Your task to perform on an android device: find which apps use the phone's location Image 0: 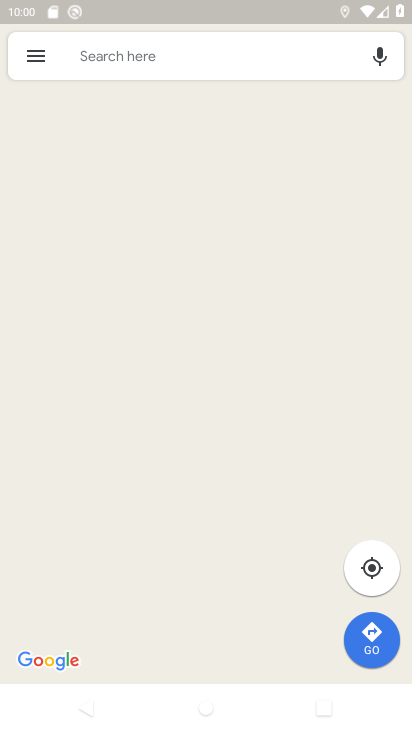
Step 0: press home button
Your task to perform on an android device: find which apps use the phone's location Image 1: 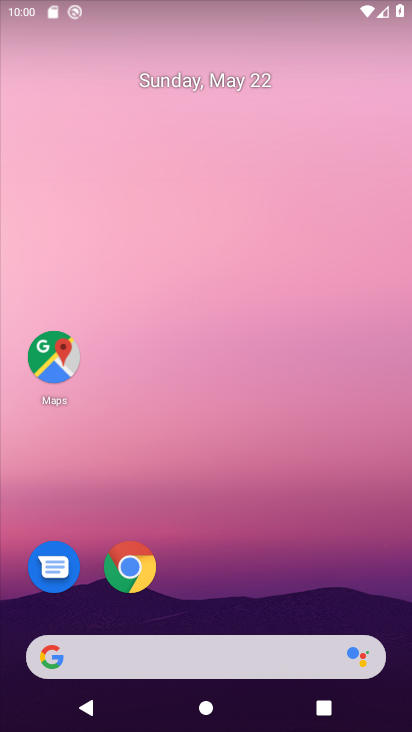
Step 1: drag from (226, 609) to (208, 132)
Your task to perform on an android device: find which apps use the phone's location Image 2: 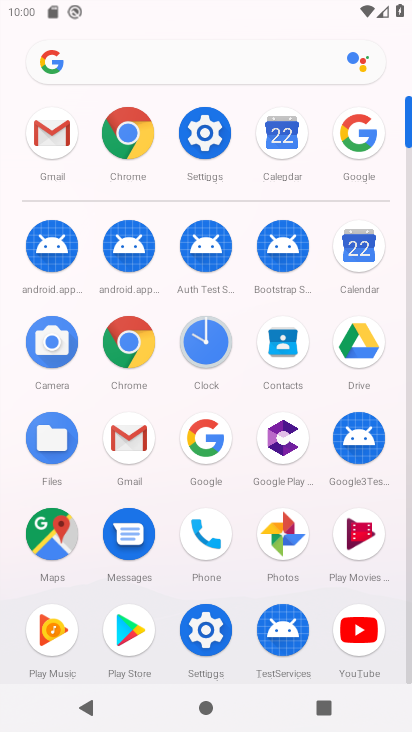
Step 2: click (199, 127)
Your task to perform on an android device: find which apps use the phone's location Image 3: 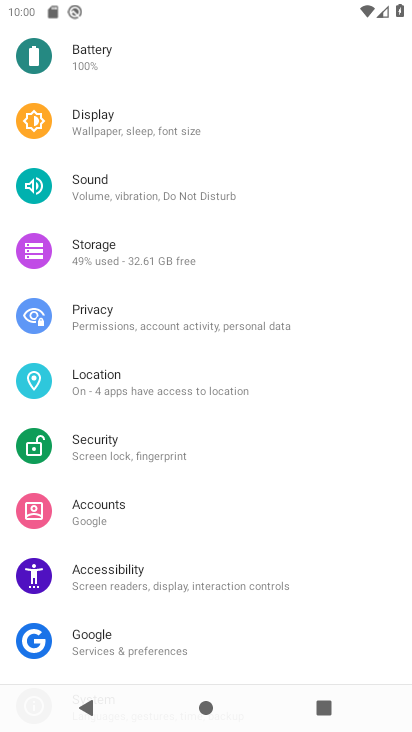
Step 3: click (128, 383)
Your task to perform on an android device: find which apps use the phone's location Image 4: 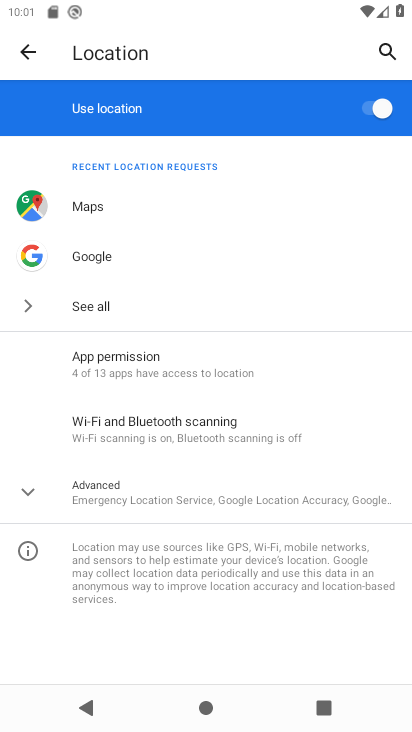
Step 4: click (156, 367)
Your task to perform on an android device: find which apps use the phone's location Image 5: 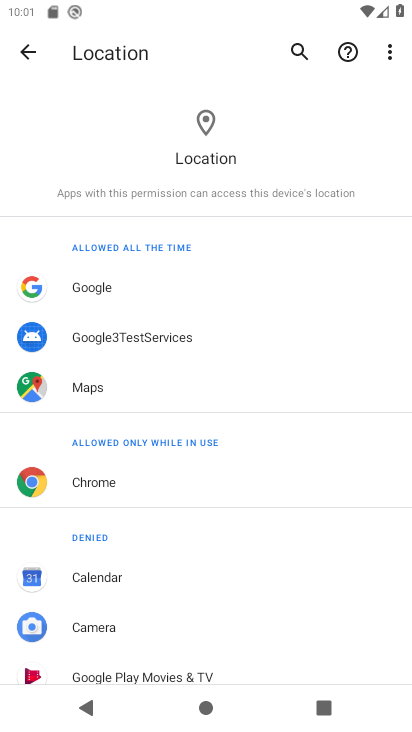
Step 5: task complete